Your task to perform on an android device: Open accessibility settings Image 0: 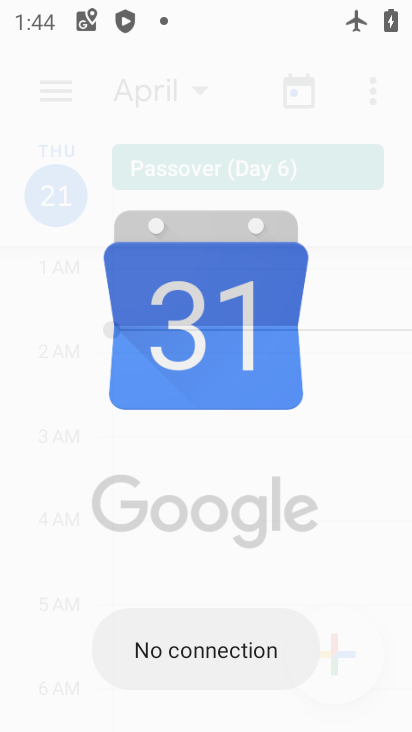
Step 0: drag from (226, 566) to (208, 6)
Your task to perform on an android device: Open accessibility settings Image 1: 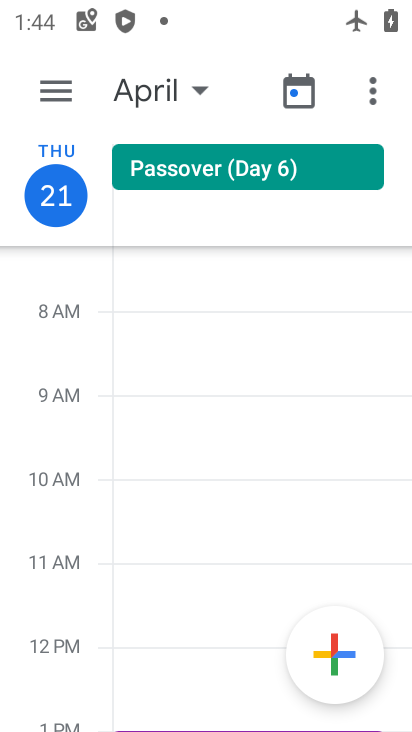
Step 1: press home button
Your task to perform on an android device: Open accessibility settings Image 2: 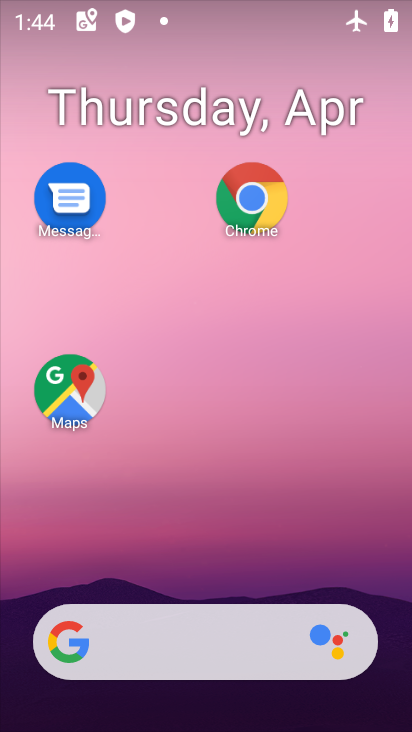
Step 2: drag from (202, 575) to (150, 8)
Your task to perform on an android device: Open accessibility settings Image 3: 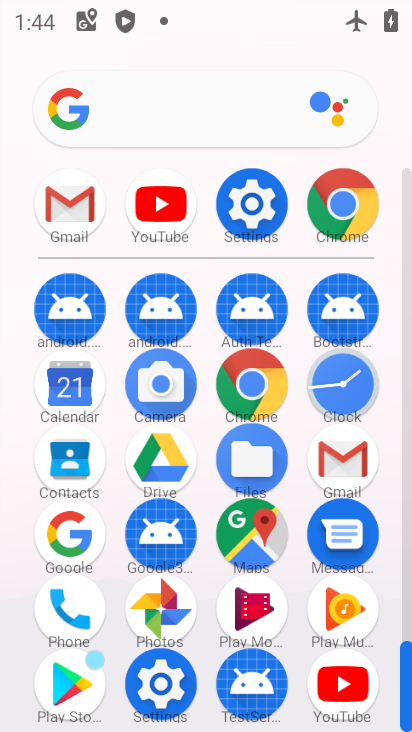
Step 3: click (253, 202)
Your task to perform on an android device: Open accessibility settings Image 4: 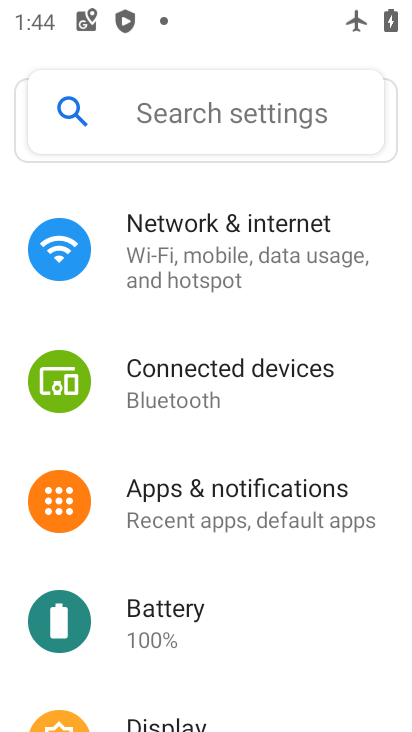
Step 4: drag from (274, 533) to (177, 45)
Your task to perform on an android device: Open accessibility settings Image 5: 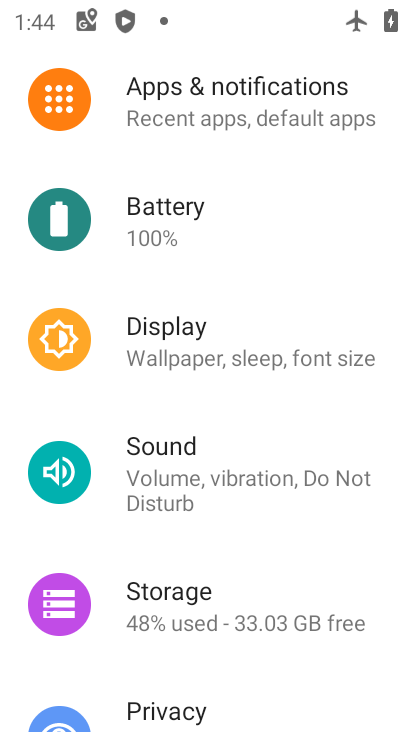
Step 5: drag from (172, 611) to (101, 139)
Your task to perform on an android device: Open accessibility settings Image 6: 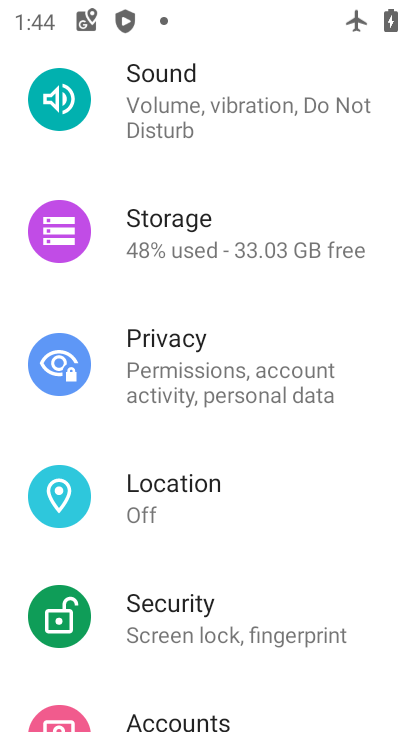
Step 6: drag from (172, 579) to (143, 182)
Your task to perform on an android device: Open accessibility settings Image 7: 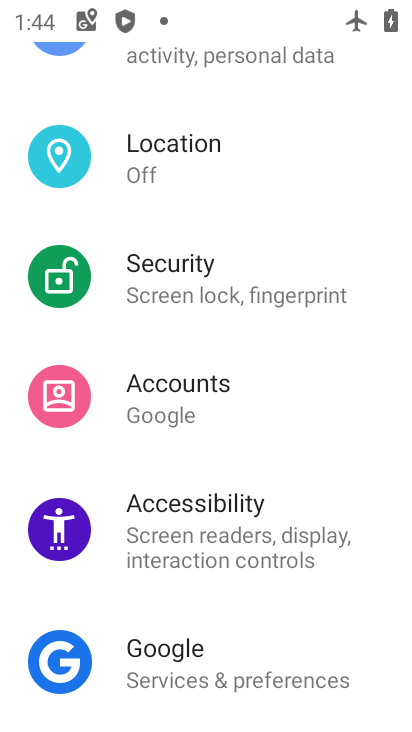
Step 7: click (195, 557)
Your task to perform on an android device: Open accessibility settings Image 8: 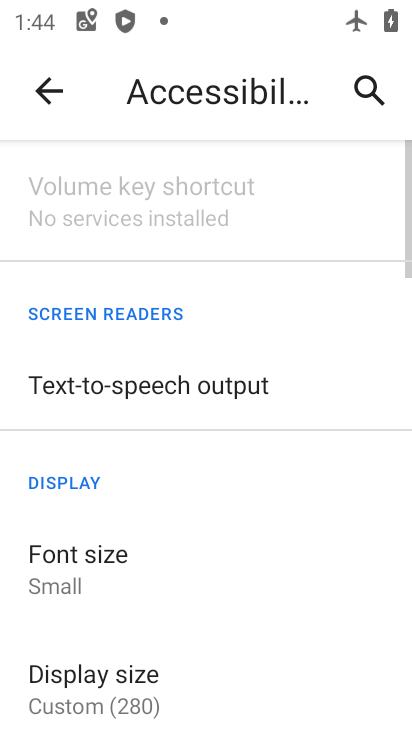
Step 8: task complete